Your task to perform on an android device: What is the news today? Image 0: 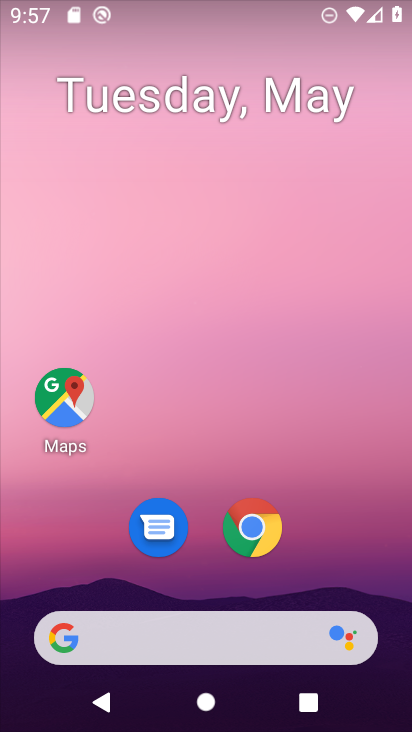
Step 0: drag from (343, 542) to (264, 158)
Your task to perform on an android device: What is the news today? Image 1: 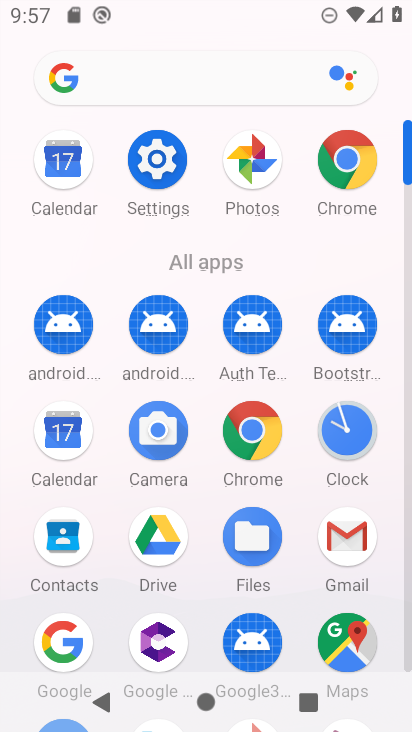
Step 1: drag from (188, 587) to (243, 332)
Your task to perform on an android device: What is the news today? Image 2: 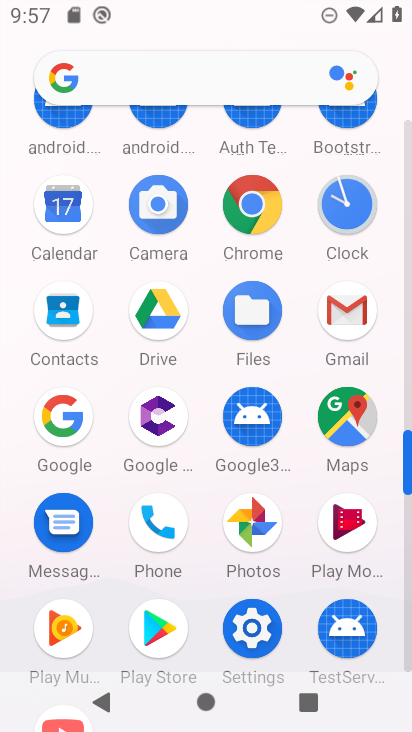
Step 2: click (56, 417)
Your task to perform on an android device: What is the news today? Image 3: 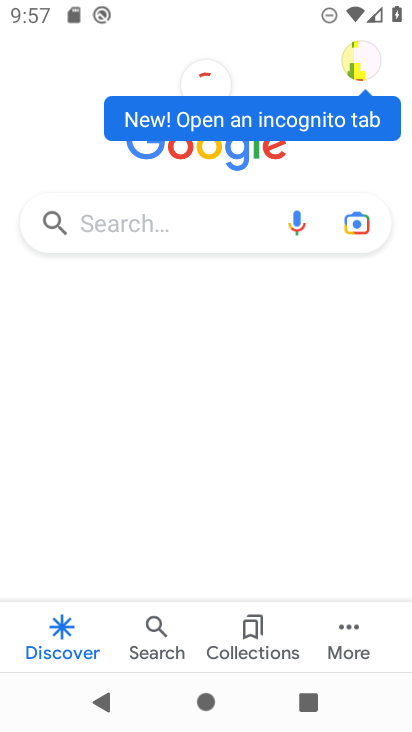
Step 3: click (165, 229)
Your task to perform on an android device: What is the news today? Image 4: 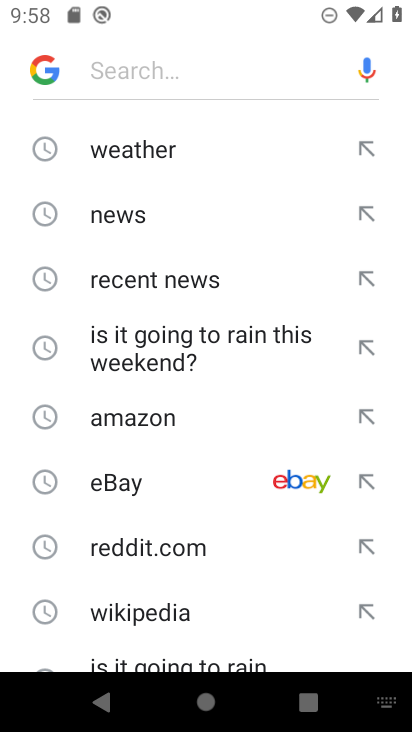
Step 4: type "news today"
Your task to perform on an android device: What is the news today? Image 5: 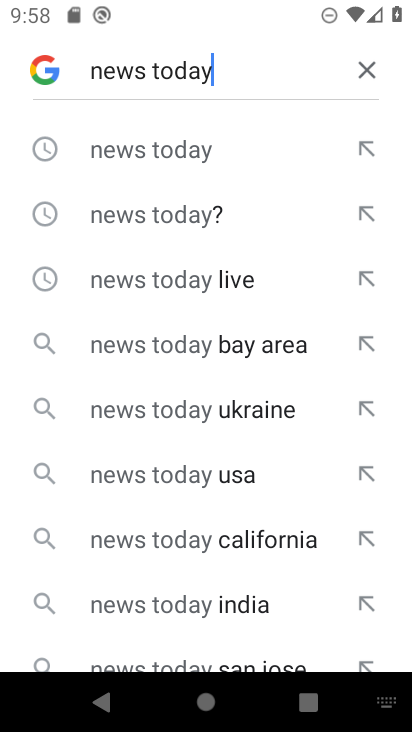
Step 5: click (200, 158)
Your task to perform on an android device: What is the news today? Image 6: 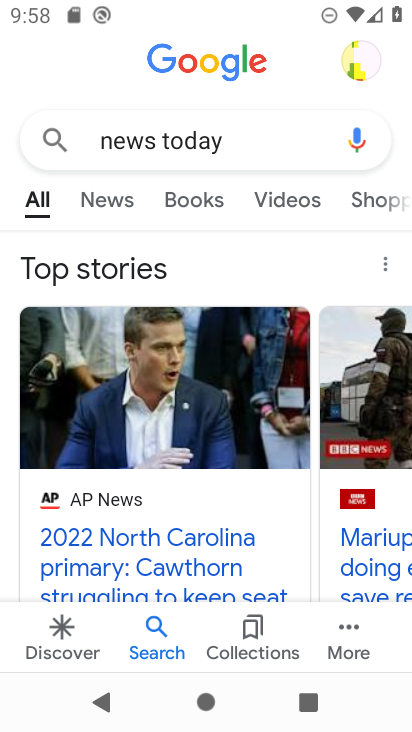
Step 6: task complete